Your task to perform on an android device: Open privacy settings Image 0: 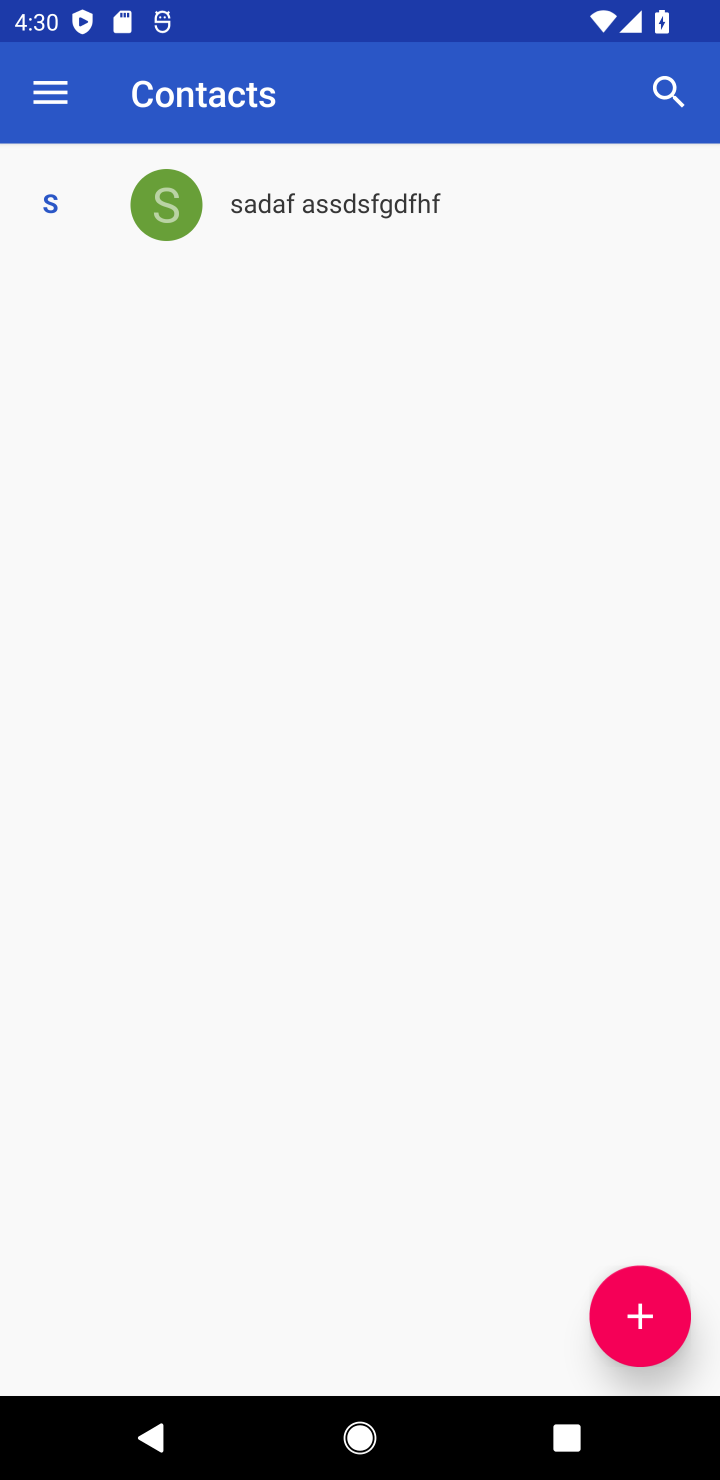
Step 0: press home button
Your task to perform on an android device: Open privacy settings Image 1: 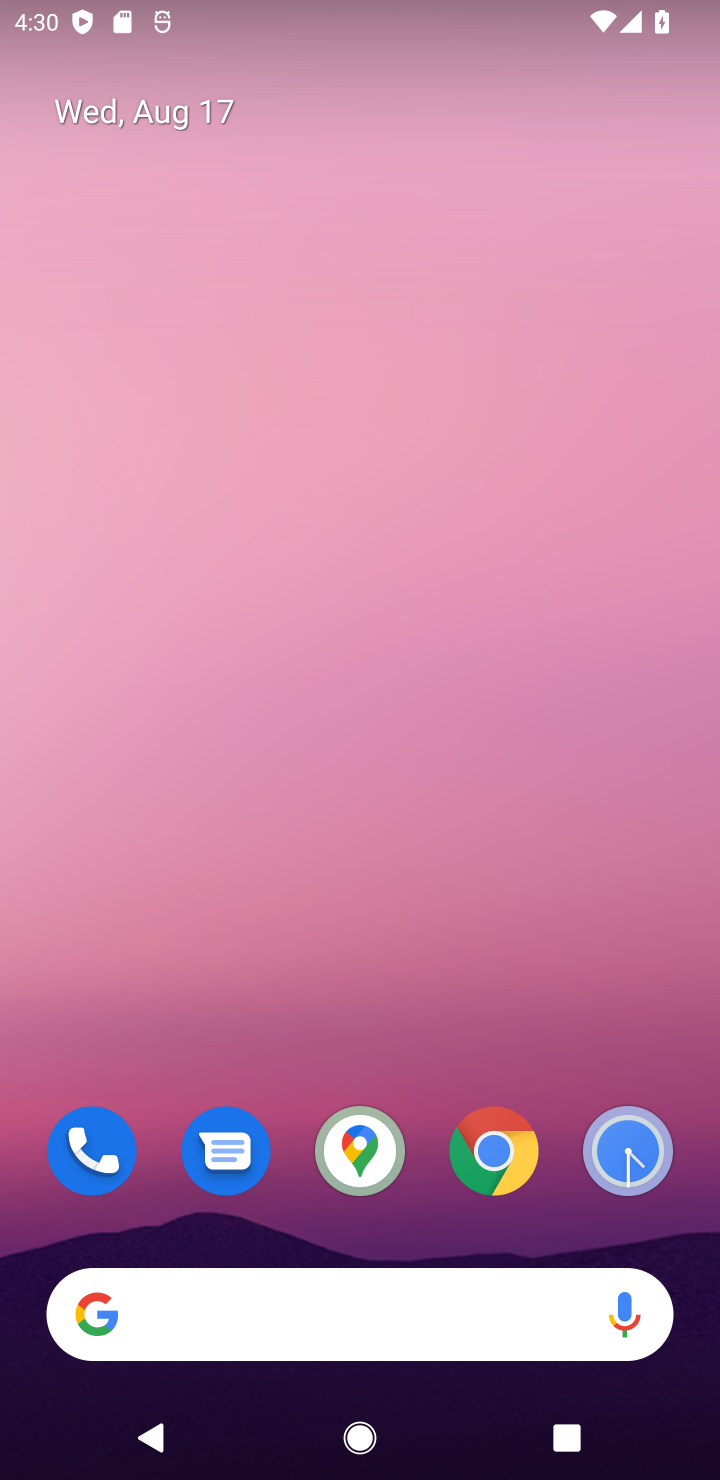
Step 1: drag from (318, 1238) to (283, 180)
Your task to perform on an android device: Open privacy settings Image 2: 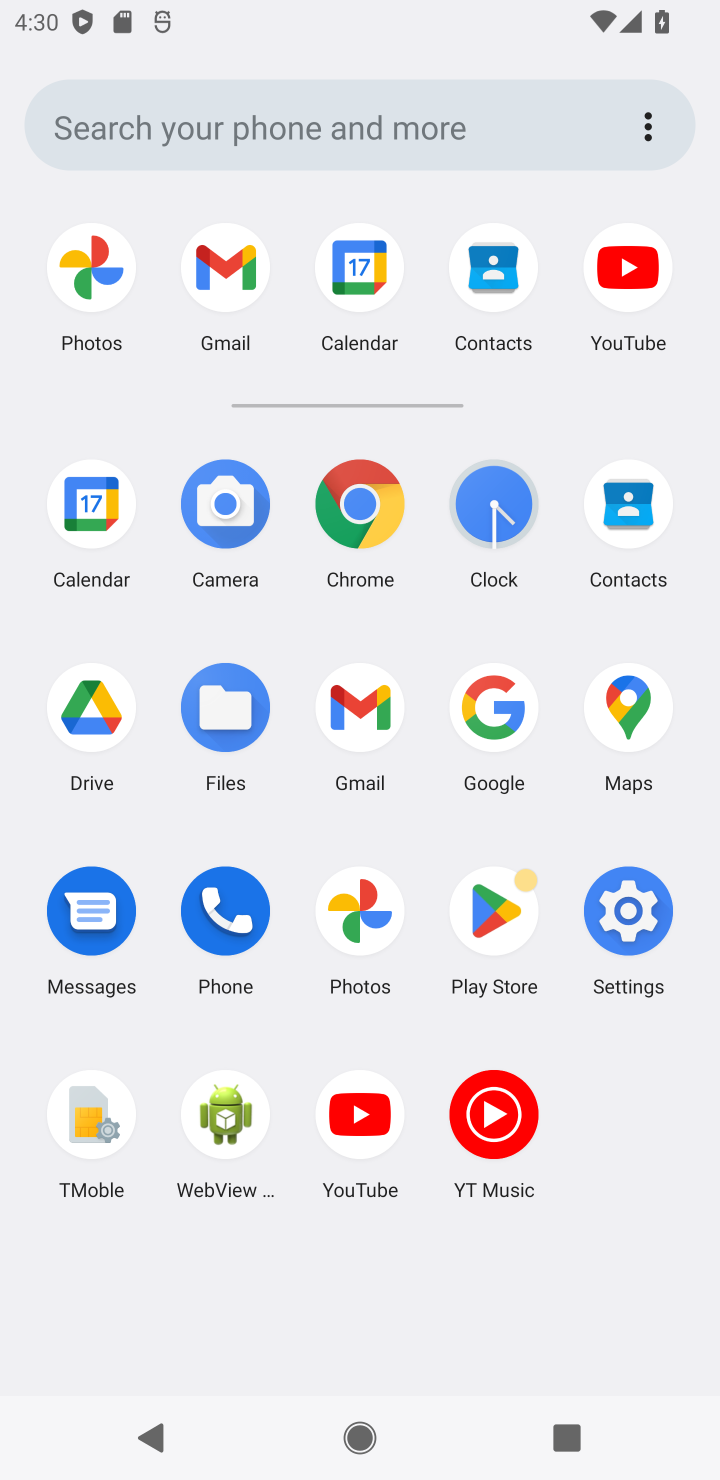
Step 2: click (603, 961)
Your task to perform on an android device: Open privacy settings Image 3: 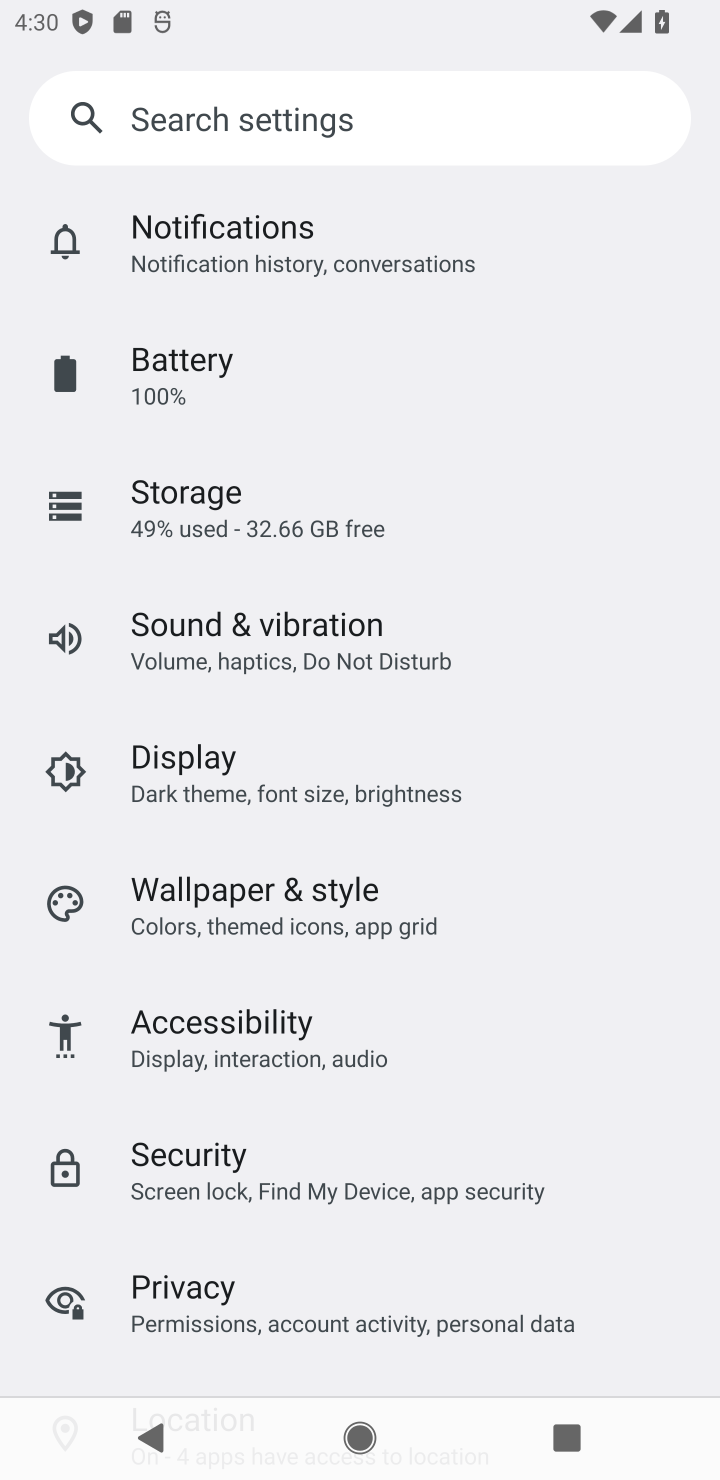
Step 3: click (385, 1332)
Your task to perform on an android device: Open privacy settings Image 4: 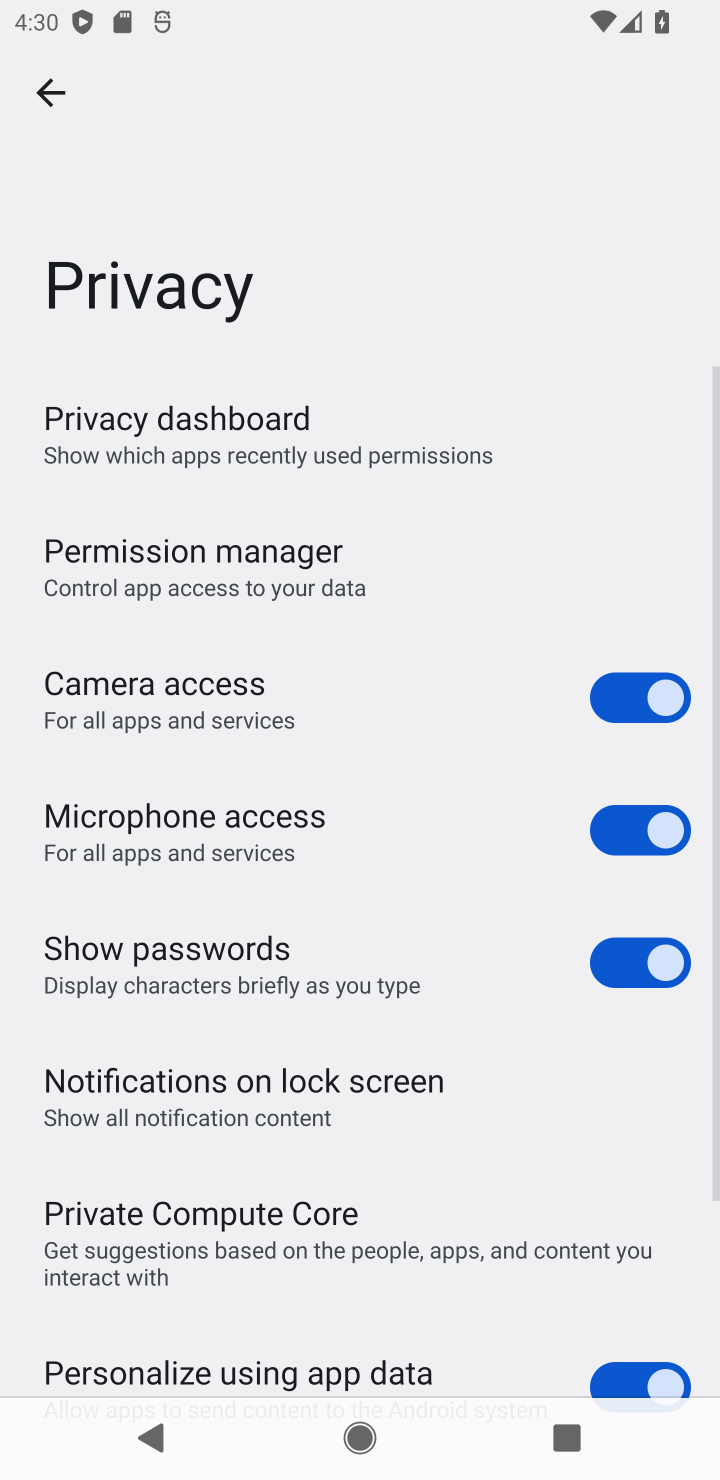
Step 4: task complete